Your task to perform on an android device: add a contact Image 0: 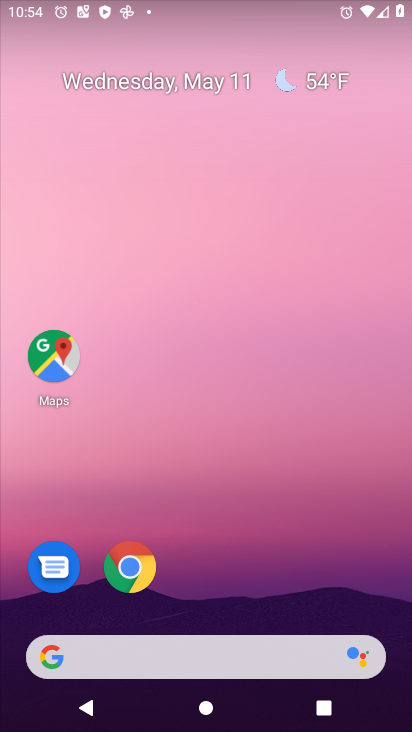
Step 0: click (149, 270)
Your task to perform on an android device: add a contact Image 1: 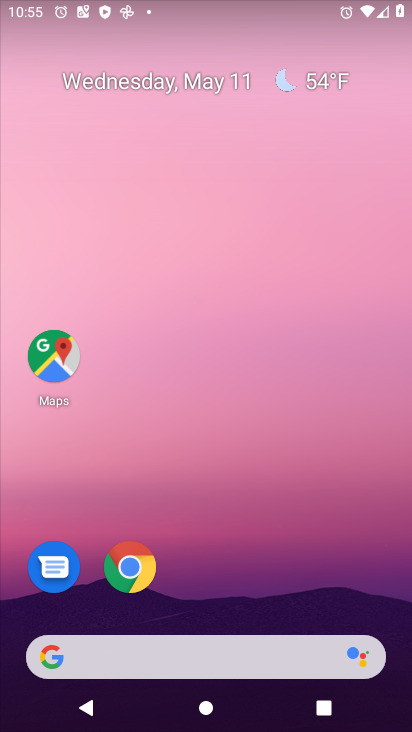
Step 1: drag from (200, 555) to (286, 23)
Your task to perform on an android device: add a contact Image 2: 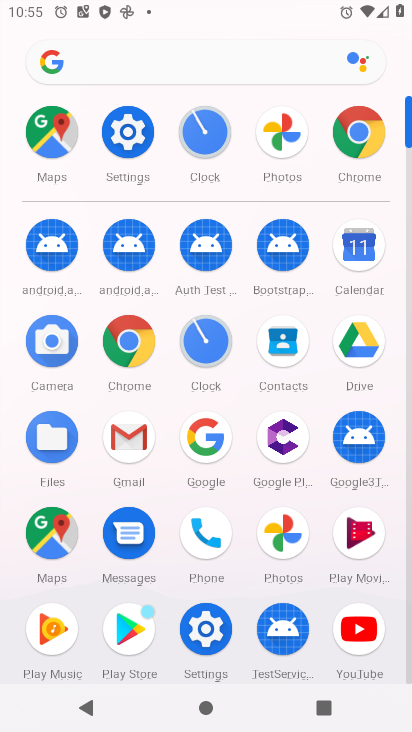
Step 2: click (289, 349)
Your task to perform on an android device: add a contact Image 3: 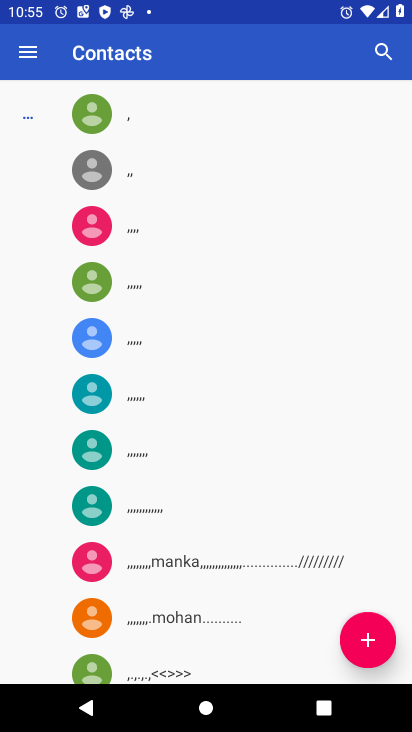
Step 3: click (364, 623)
Your task to perform on an android device: add a contact Image 4: 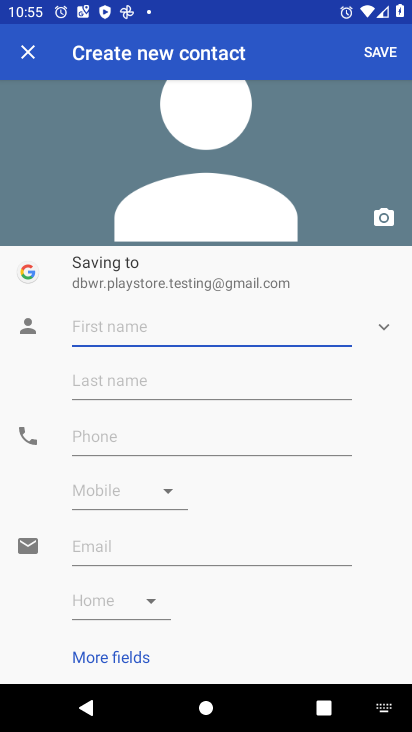
Step 4: type "inaya"
Your task to perform on an android device: add a contact Image 5: 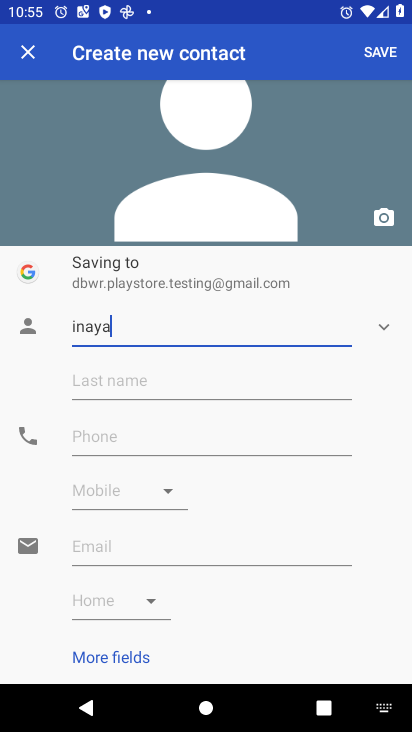
Step 5: click (380, 58)
Your task to perform on an android device: add a contact Image 6: 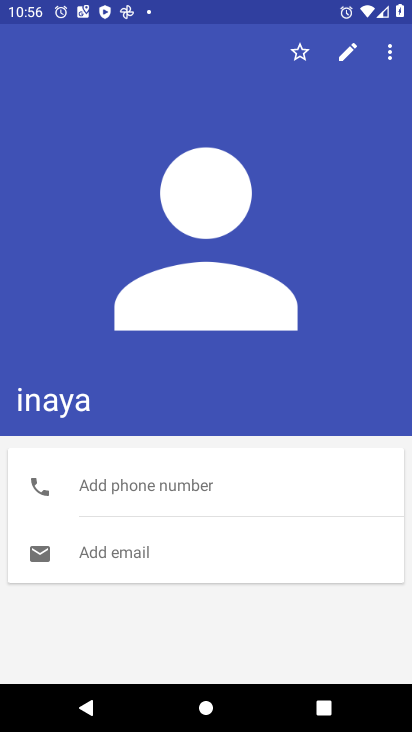
Step 6: task complete